Your task to perform on an android device: clear history in the chrome app Image 0: 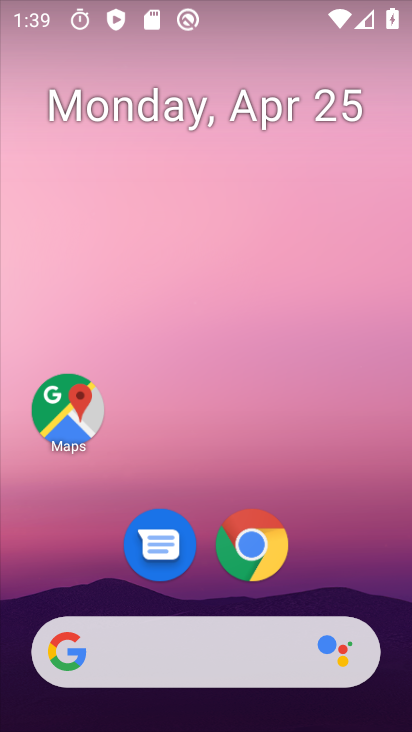
Step 0: click (267, 552)
Your task to perform on an android device: clear history in the chrome app Image 1: 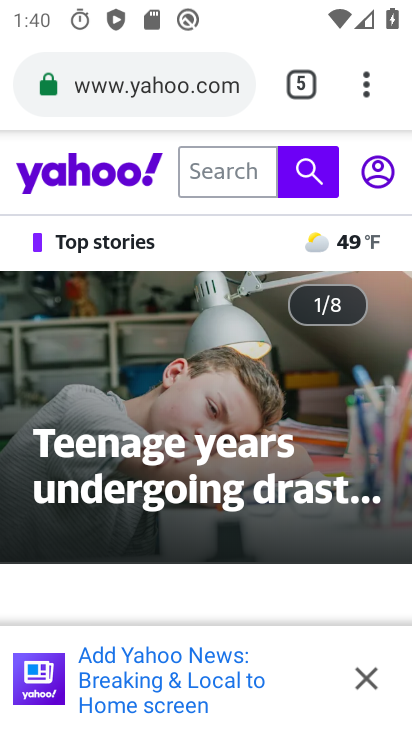
Step 1: click (359, 69)
Your task to perform on an android device: clear history in the chrome app Image 2: 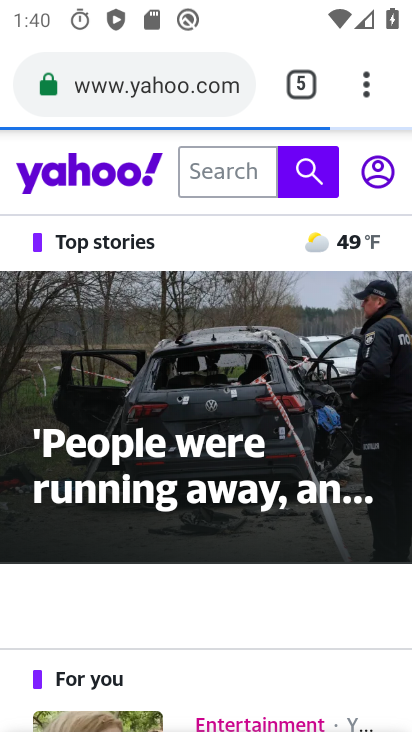
Step 2: click (379, 87)
Your task to perform on an android device: clear history in the chrome app Image 3: 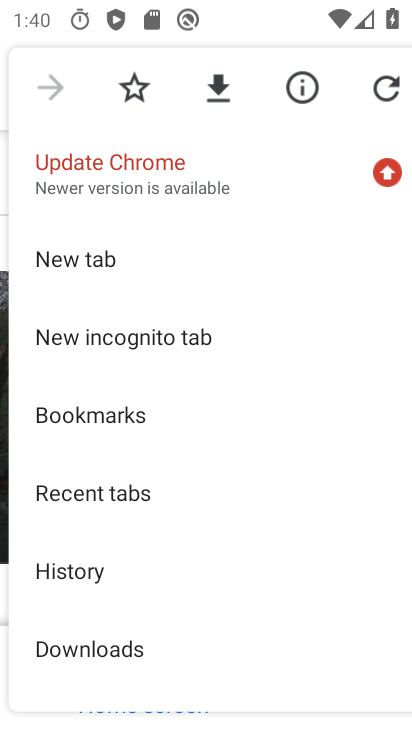
Step 3: click (110, 551)
Your task to perform on an android device: clear history in the chrome app Image 4: 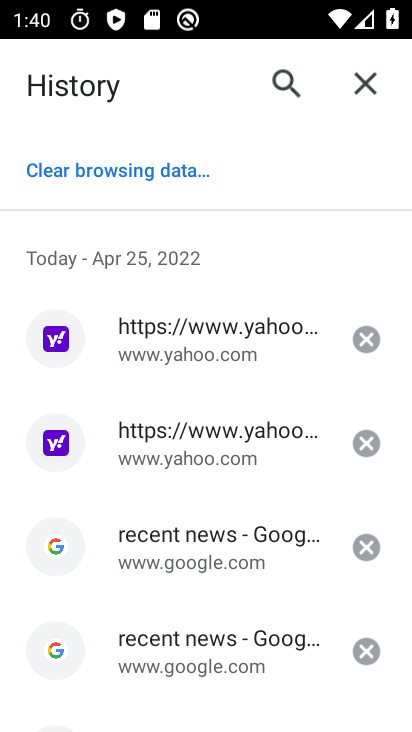
Step 4: click (182, 168)
Your task to perform on an android device: clear history in the chrome app Image 5: 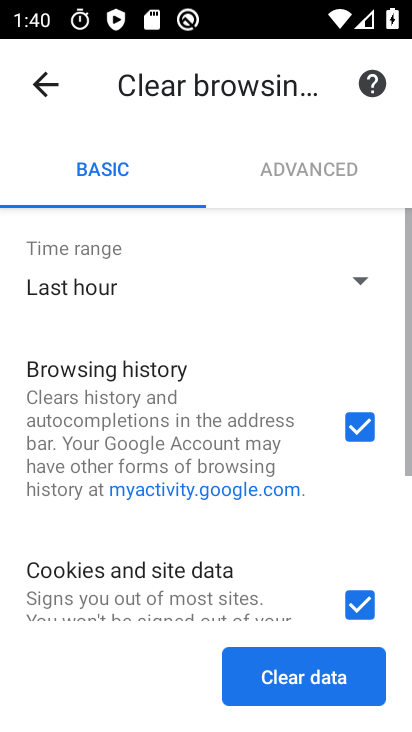
Step 5: drag from (307, 573) to (280, 295)
Your task to perform on an android device: clear history in the chrome app Image 6: 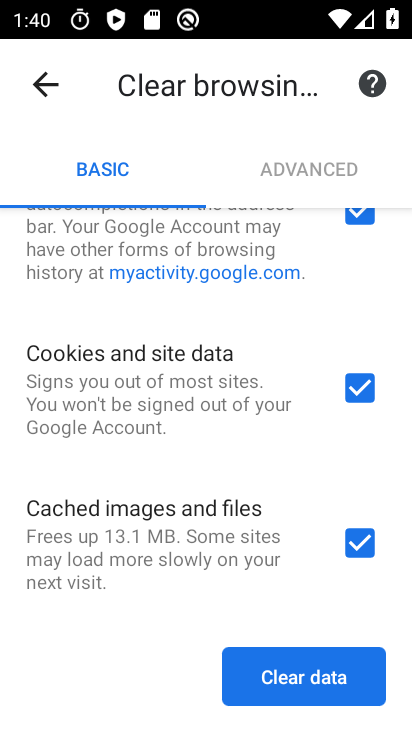
Step 6: click (330, 682)
Your task to perform on an android device: clear history in the chrome app Image 7: 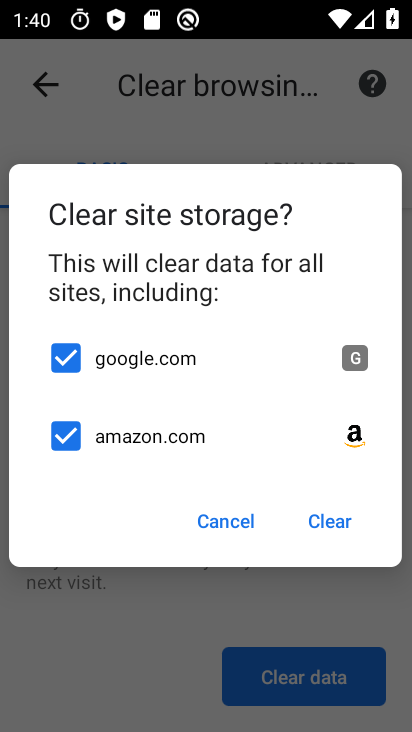
Step 7: click (324, 524)
Your task to perform on an android device: clear history in the chrome app Image 8: 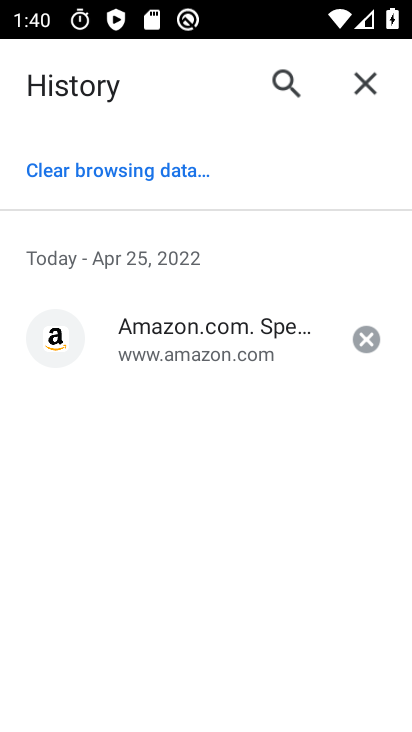
Step 8: task complete